Your task to perform on an android device: snooze an email in the gmail app Image 0: 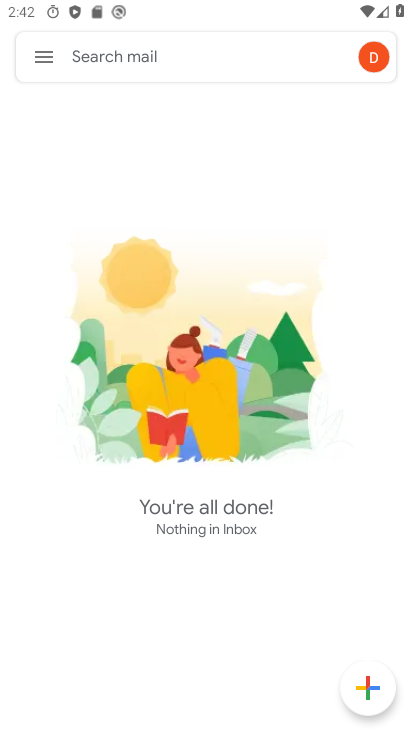
Step 0: click (40, 53)
Your task to perform on an android device: snooze an email in the gmail app Image 1: 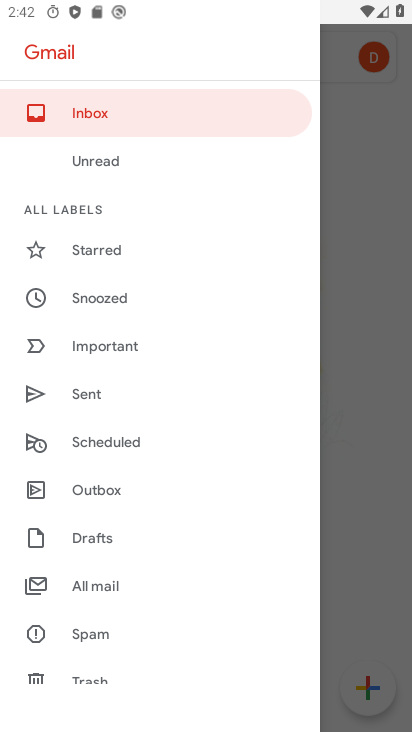
Step 1: click (114, 298)
Your task to perform on an android device: snooze an email in the gmail app Image 2: 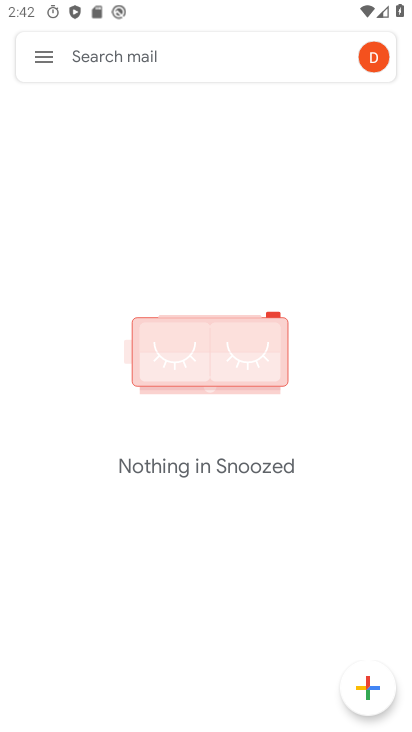
Step 2: task complete